Your task to perform on an android device: Open network settings Image 0: 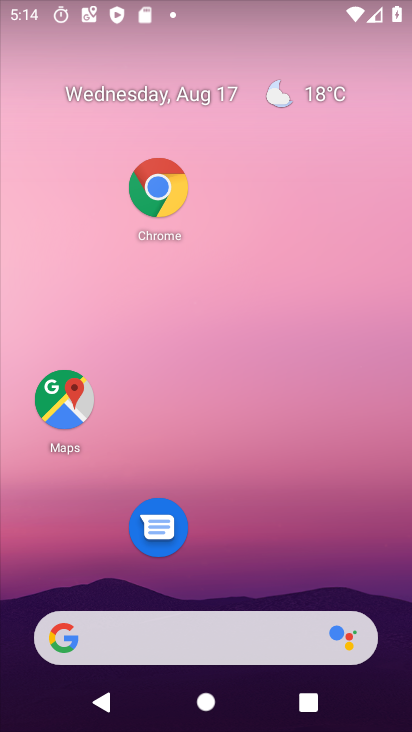
Step 0: click (150, 571)
Your task to perform on an android device: Open network settings Image 1: 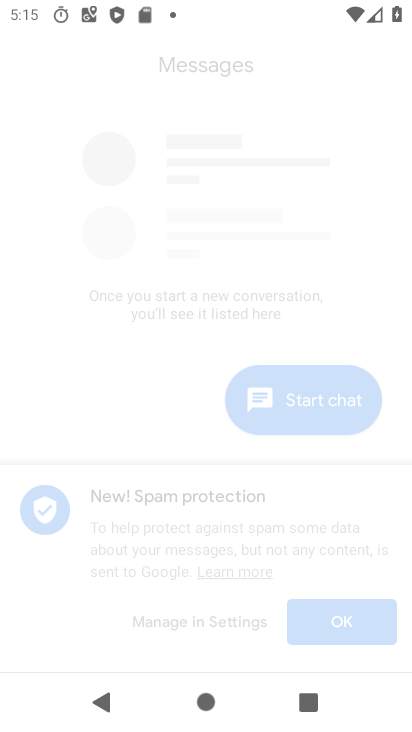
Step 1: drag from (269, 8) to (281, 591)
Your task to perform on an android device: Open network settings Image 2: 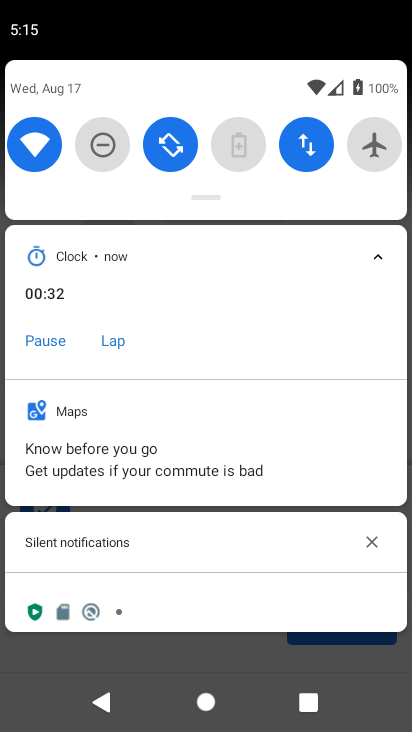
Step 2: click (311, 133)
Your task to perform on an android device: Open network settings Image 3: 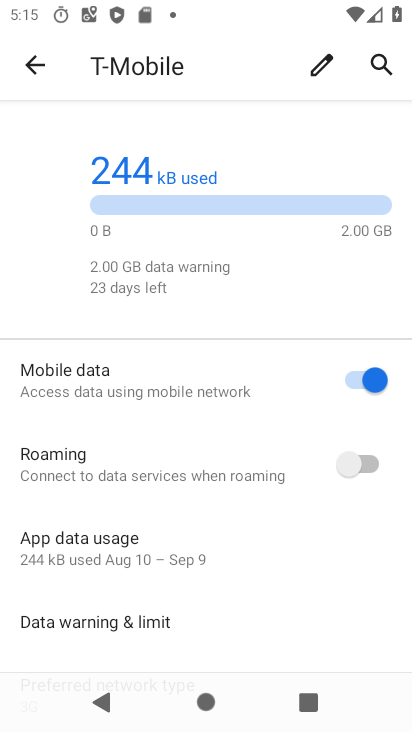
Step 3: task complete